Your task to perform on an android device: Is it going to rain this weekend? Image 0: 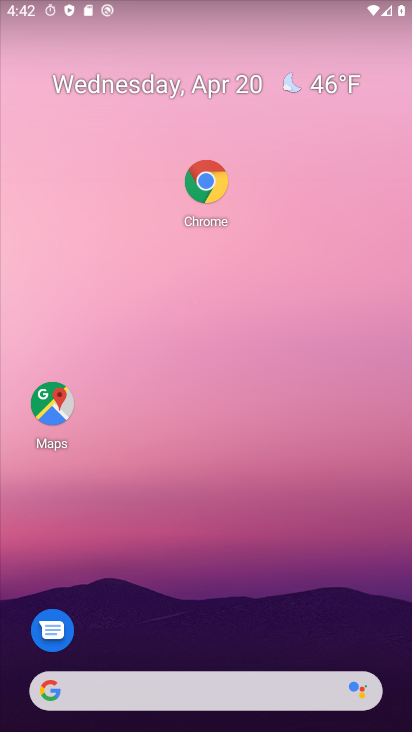
Step 0: drag from (187, 634) to (265, 304)
Your task to perform on an android device: Is it going to rain this weekend? Image 1: 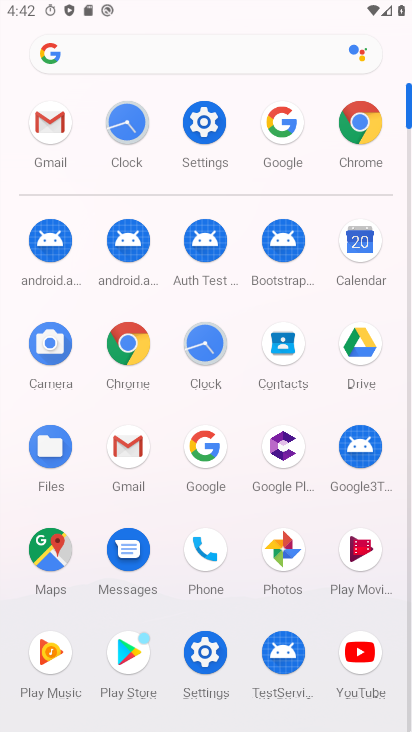
Step 1: click (203, 453)
Your task to perform on an android device: Is it going to rain this weekend? Image 2: 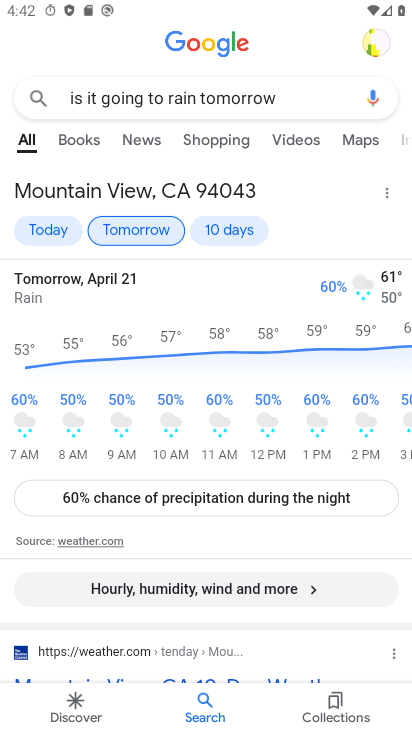
Step 2: press back button
Your task to perform on an android device: Is it going to rain this weekend? Image 3: 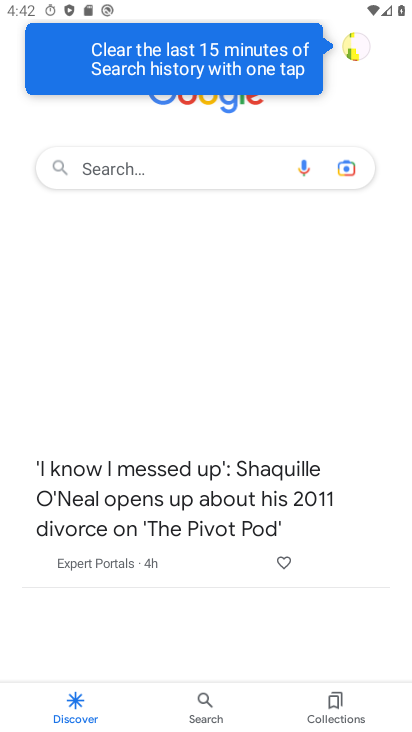
Step 3: click (121, 170)
Your task to perform on an android device: Is it going to rain this weekend? Image 4: 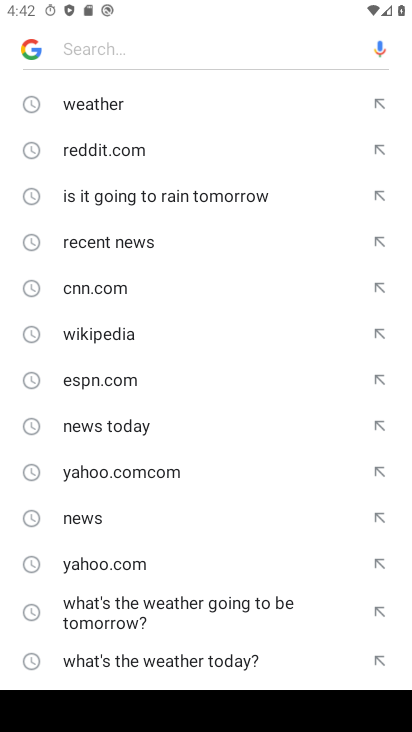
Step 4: drag from (275, 359) to (273, 644)
Your task to perform on an android device: Is it going to rain this weekend? Image 5: 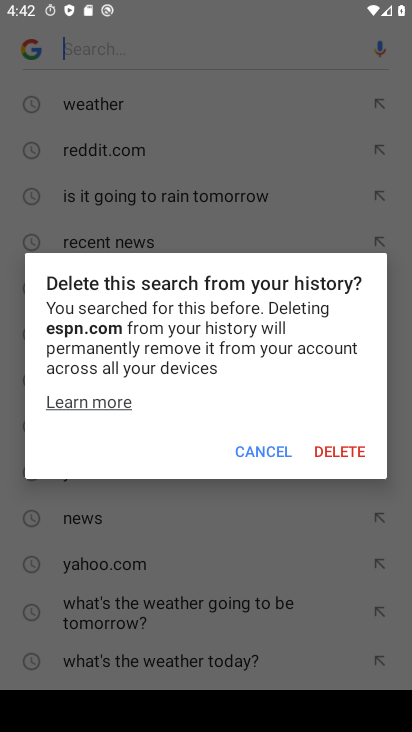
Step 5: click (252, 441)
Your task to perform on an android device: Is it going to rain this weekend? Image 6: 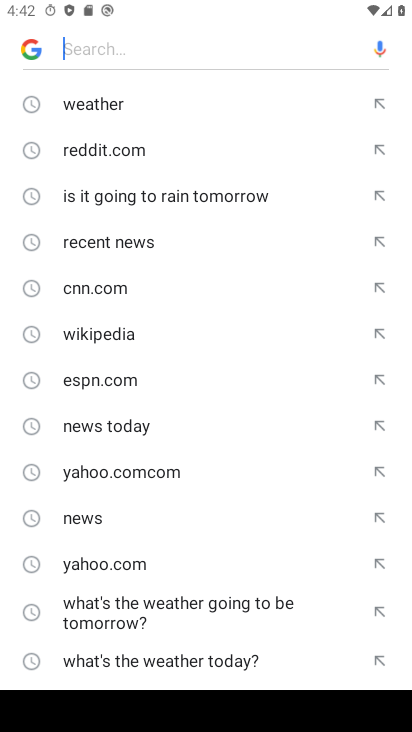
Step 6: drag from (217, 678) to (287, 243)
Your task to perform on an android device: Is it going to rain this weekend? Image 7: 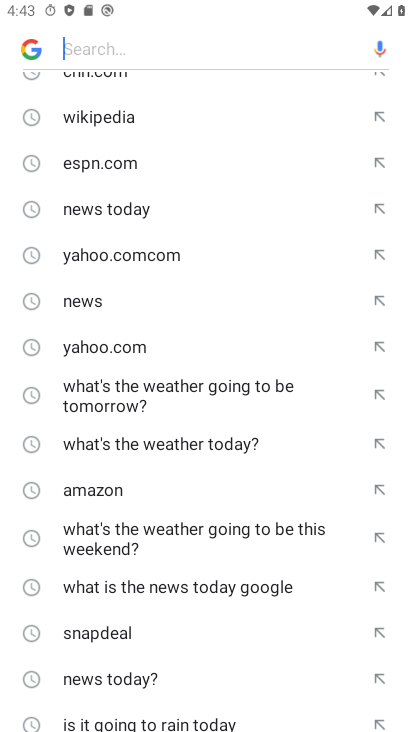
Step 7: drag from (197, 665) to (294, 316)
Your task to perform on an android device: Is it going to rain this weekend? Image 8: 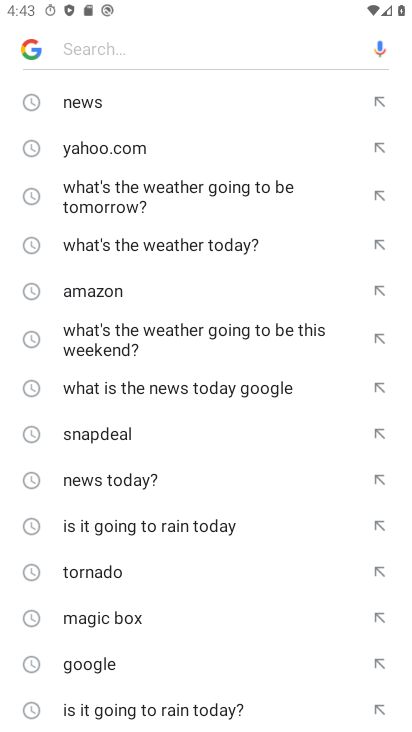
Step 8: drag from (218, 720) to (304, 396)
Your task to perform on an android device: Is it going to rain this weekend? Image 9: 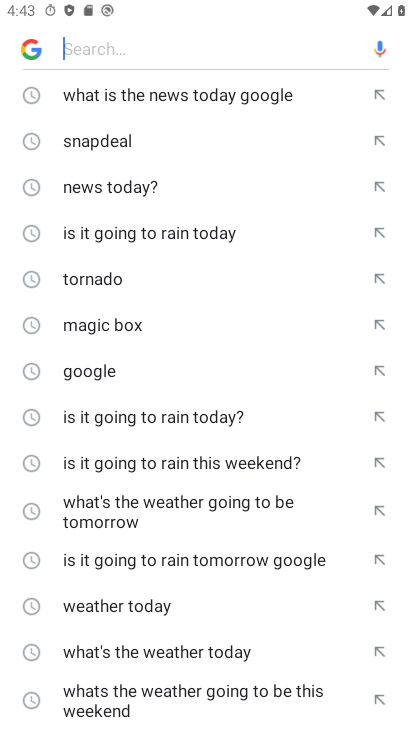
Step 9: drag from (243, 678) to (309, 449)
Your task to perform on an android device: Is it going to rain this weekend? Image 10: 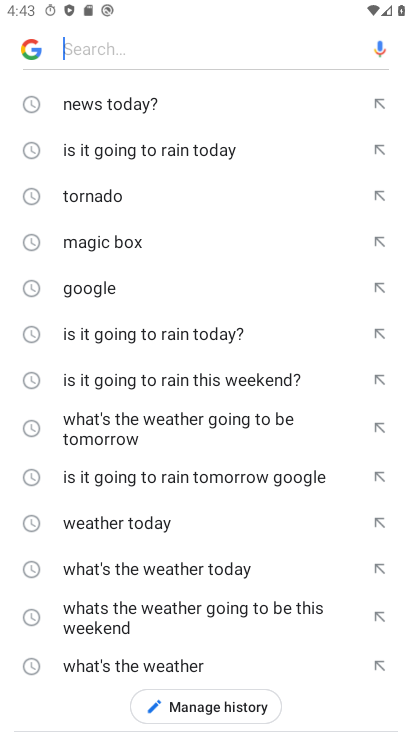
Step 10: click (121, 375)
Your task to perform on an android device: Is it going to rain this weekend? Image 11: 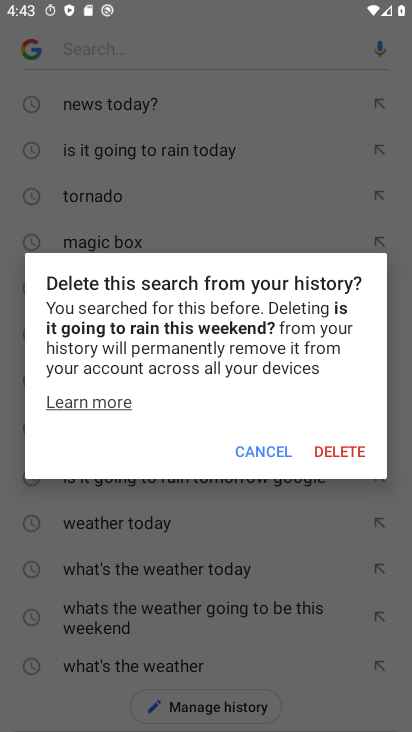
Step 11: click (246, 448)
Your task to perform on an android device: Is it going to rain this weekend? Image 12: 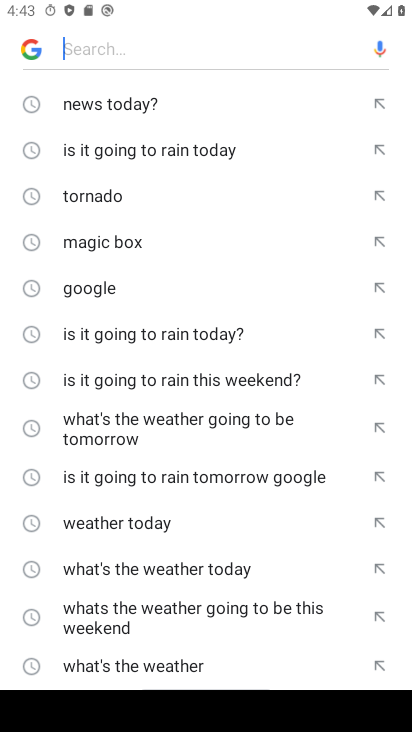
Step 12: click (92, 384)
Your task to perform on an android device: Is it going to rain this weekend? Image 13: 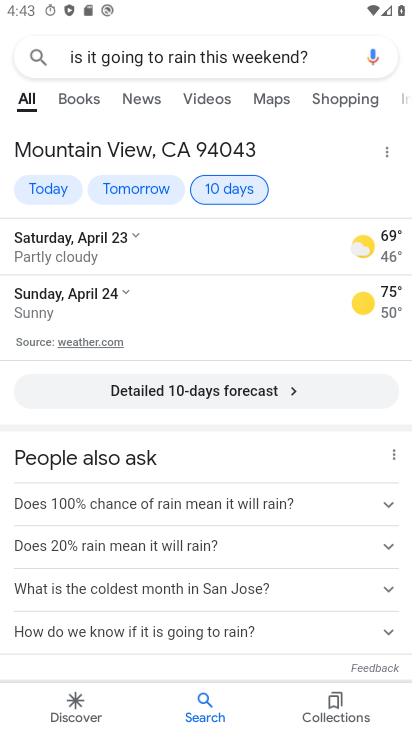
Step 13: click (212, 386)
Your task to perform on an android device: Is it going to rain this weekend? Image 14: 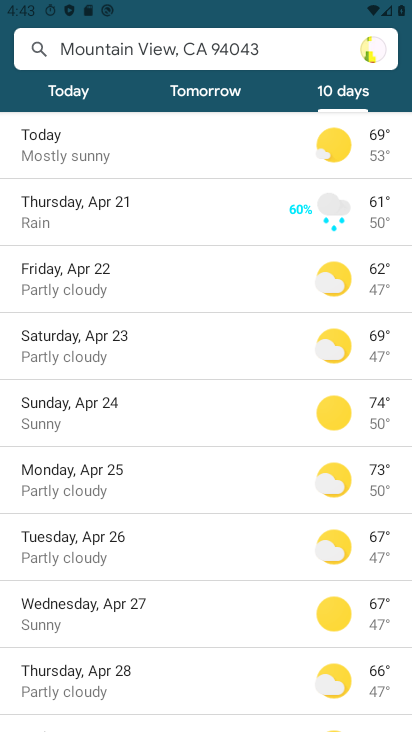
Step 14: task complete